Your task to perform on an android device: toggle data saver in the chrome app Image 0: 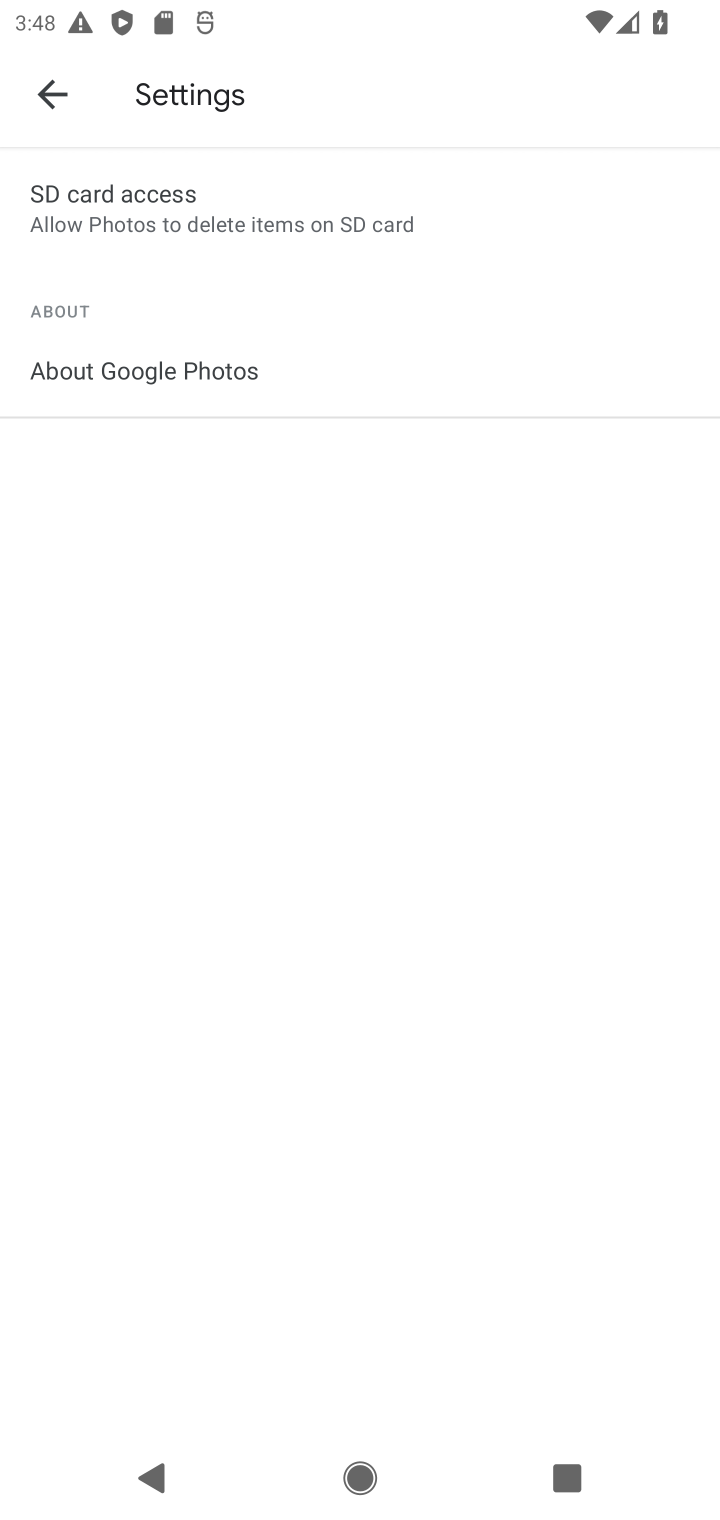
Step 0: press back button
Your task to perform on an android device: toggle data saver in the chrome app Image 1: 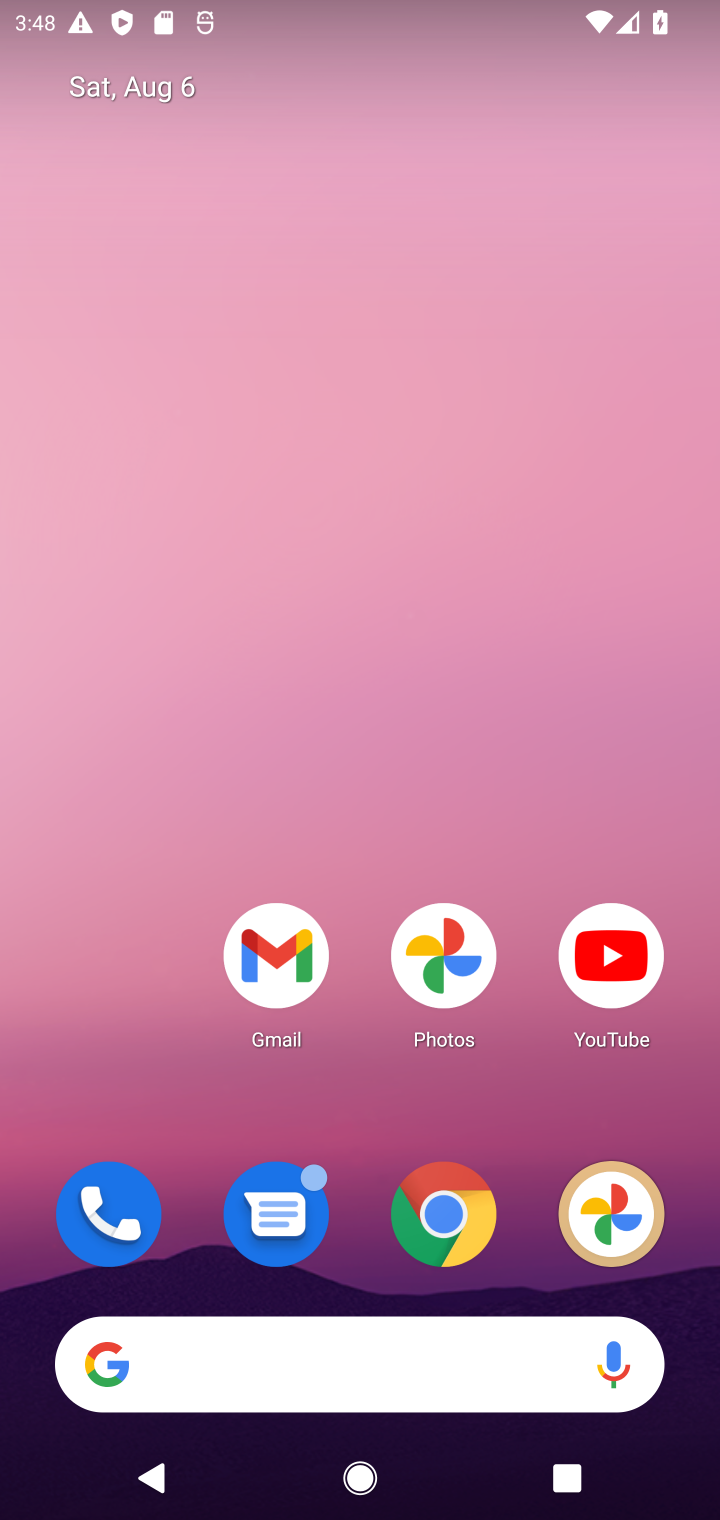
Step 1: click (446, 1219)
Your task to perform on an android device: toggle data saver in the chrome app Image 2: 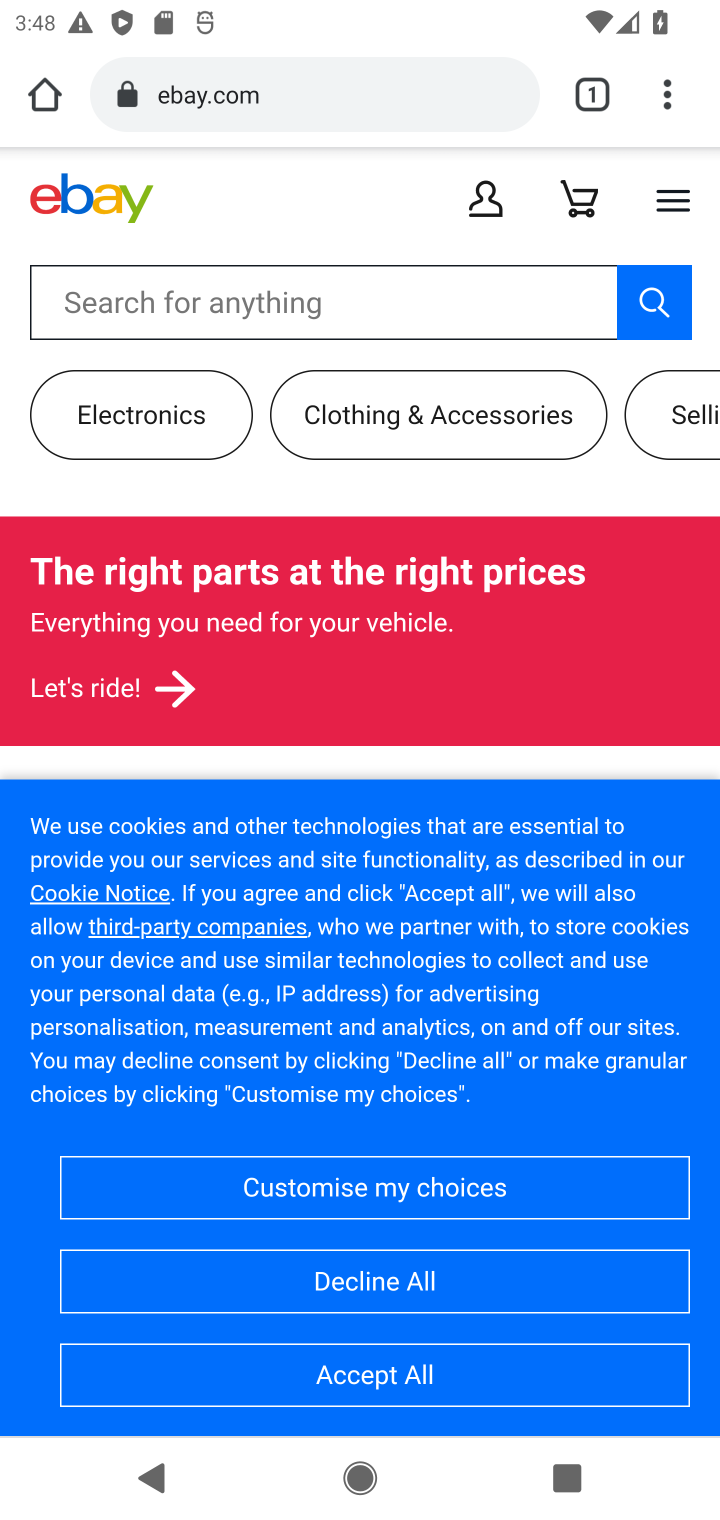
Step 2: click (662, 116)
Your task to perform on an android device: toggle data saver in the chrome app Image 3: 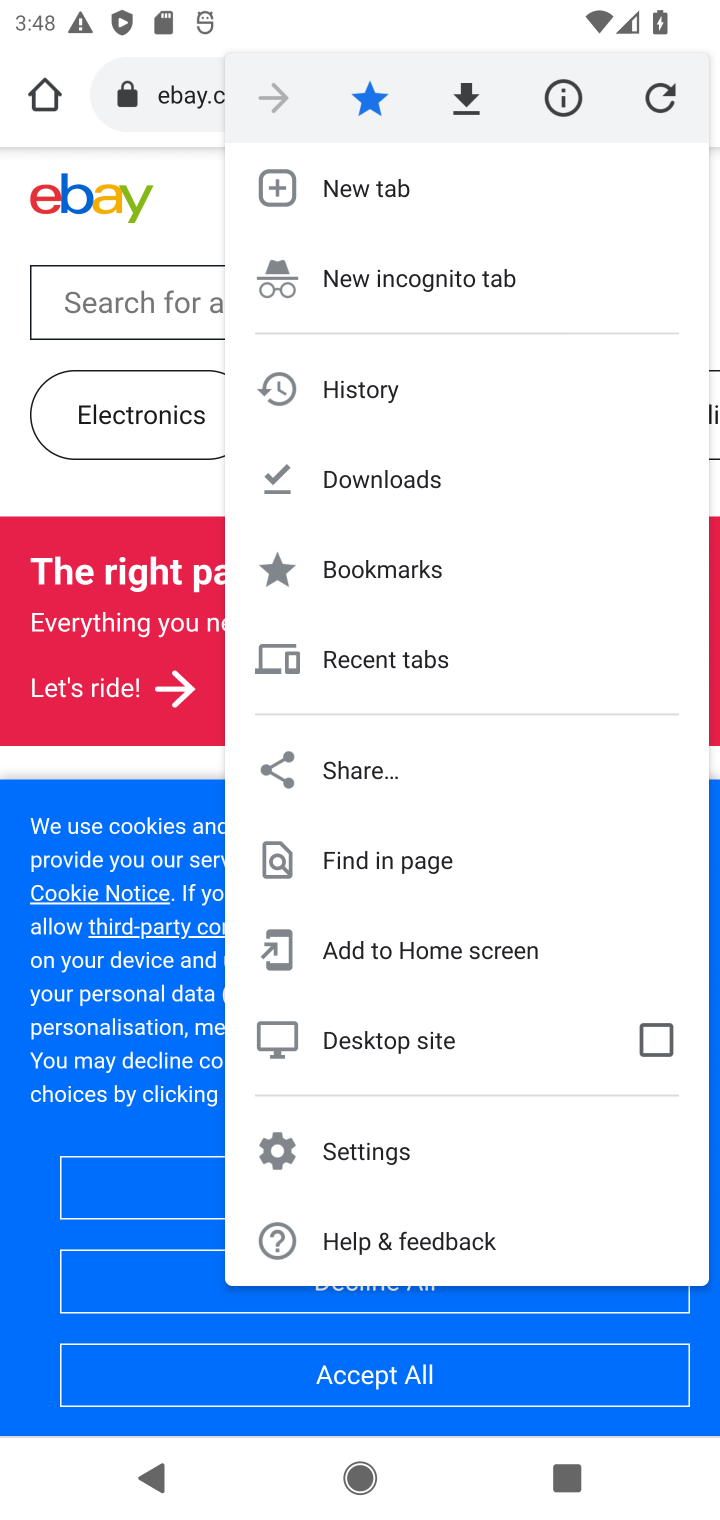
Step 3: click (379, 1150)
Your task to perform on an android device: toggle data saver in the chrome app Image 4: 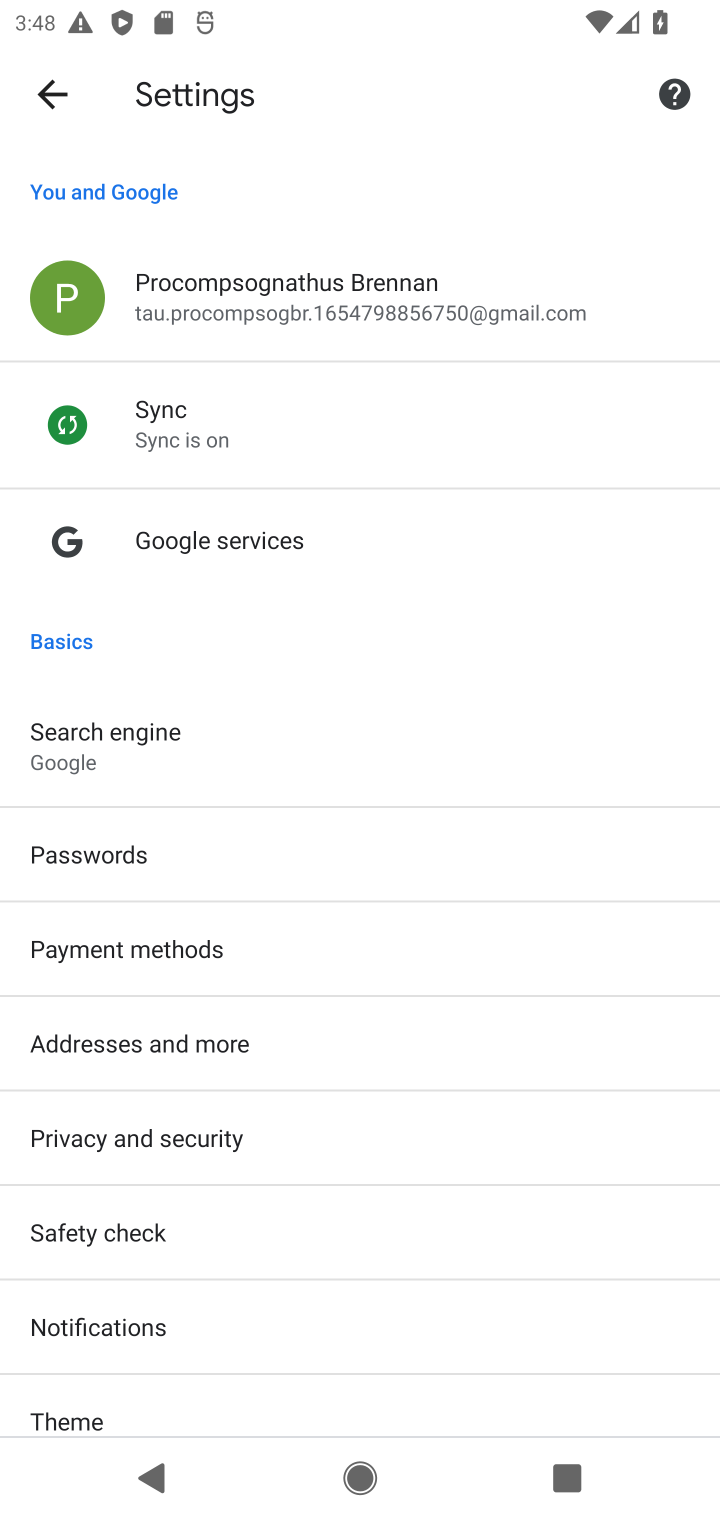
Step 4: drag from (177, 1233) to (244, 884)
Your task to perform on an android device: toggle data saver in the chrome app Image 5: 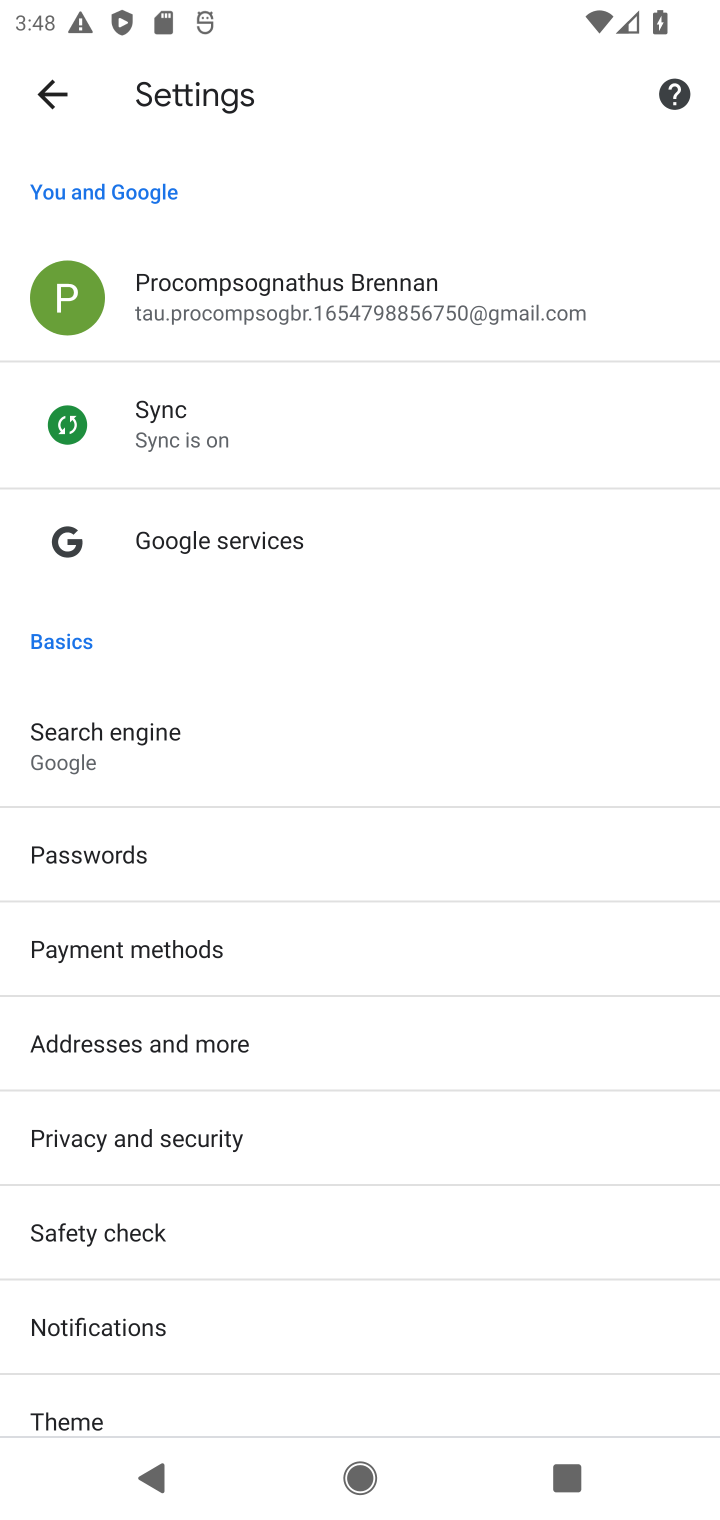
Step 5: drag from (154, 1353) to (181, 774)
Your task to perform on an android device: toggle data saver in the chrome app Image 6: 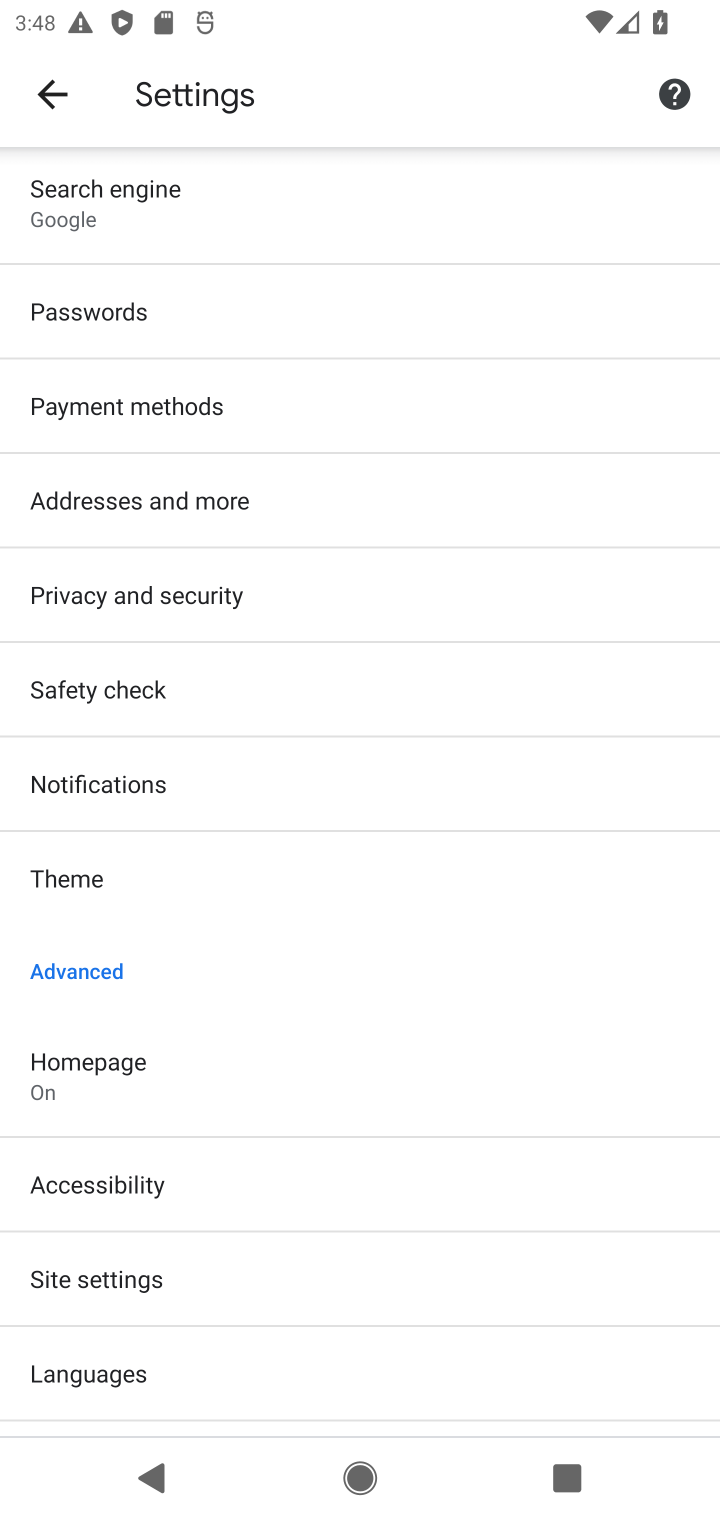
Step 6: drag from (155, 1242) to (201, 817)
Your task to perform on an android device: toggle data saver in the chrome app Image 7: 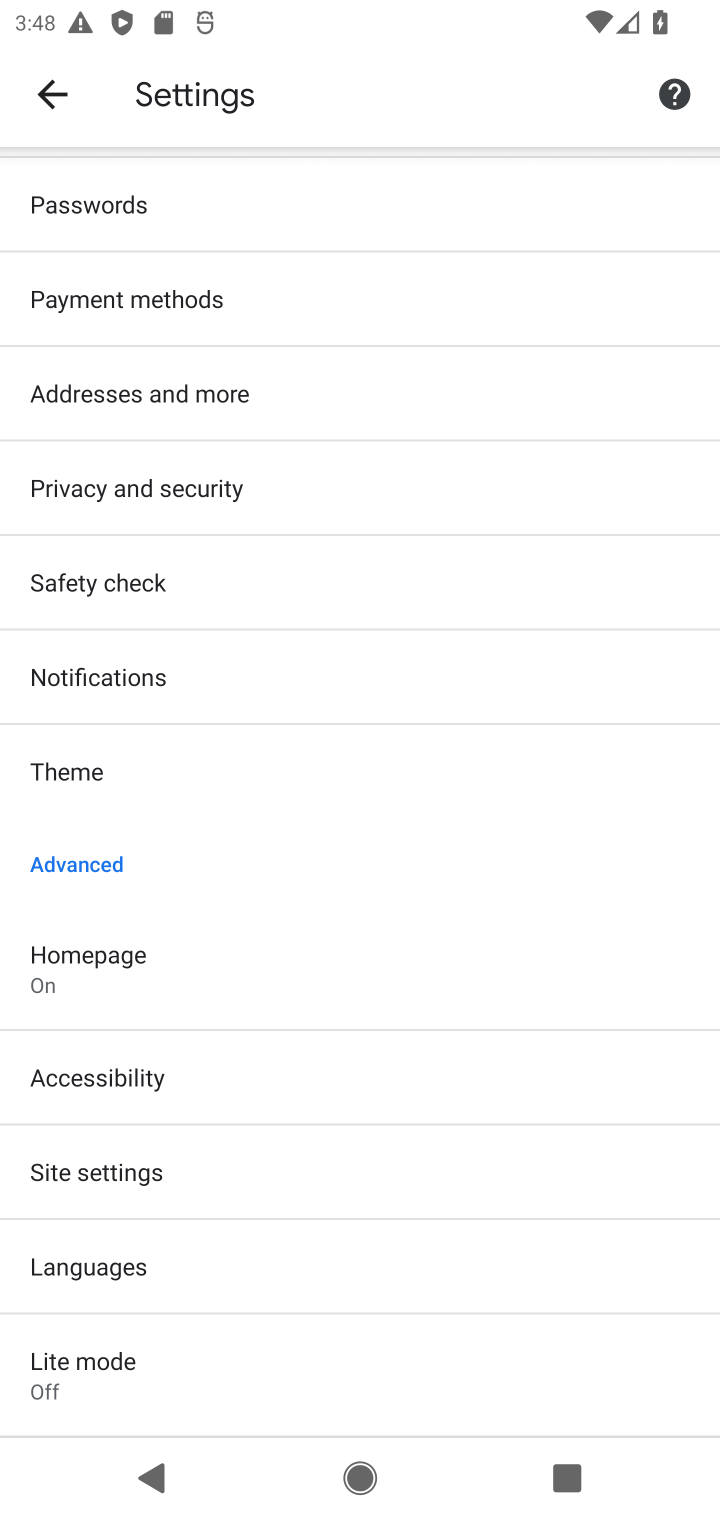
Step 7: drag from (169, 922) to (193, 782)
Your task to perform on an android device: toggle data saver in the chrome app Image 8: 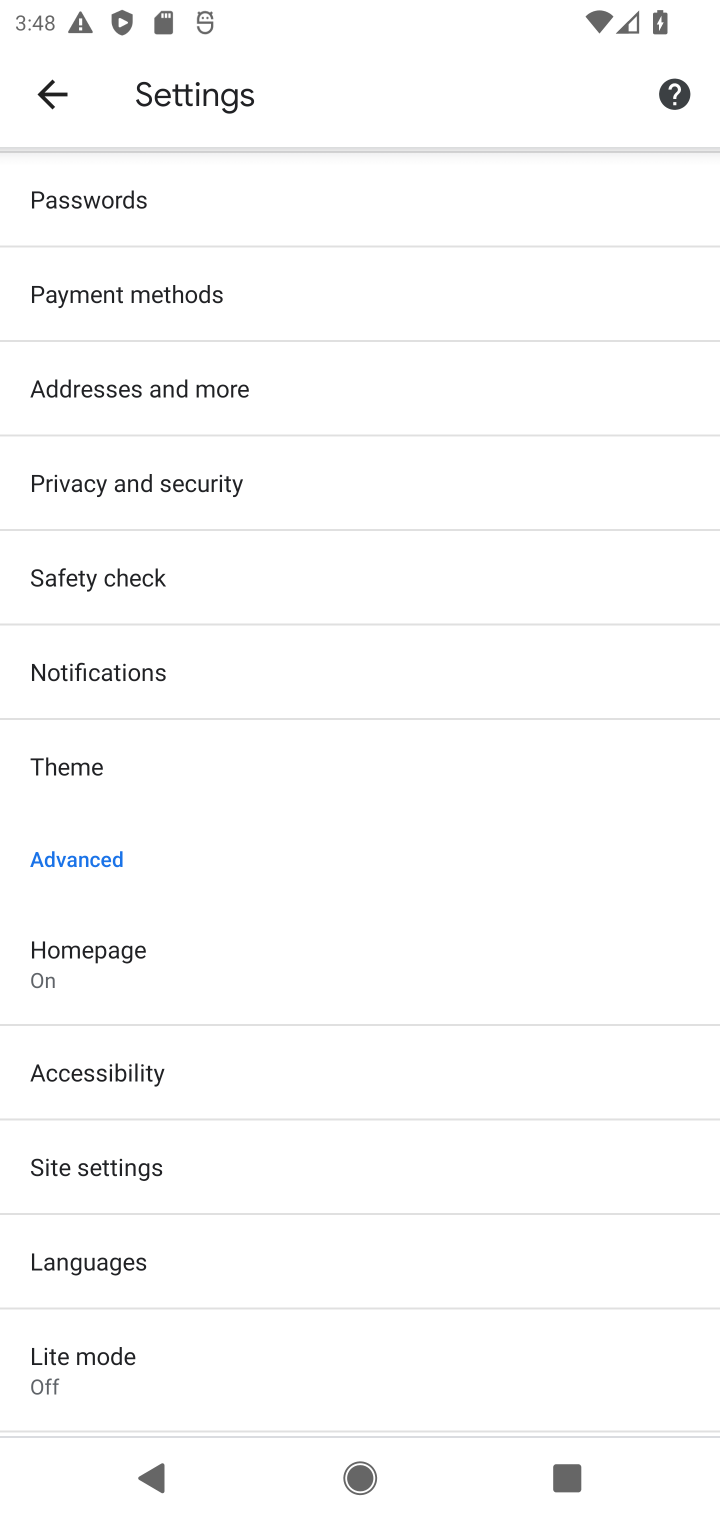
Step 8: click (75, 1347)
Your task to perform on an android device: toggle data saver in the chrome app Image 9: 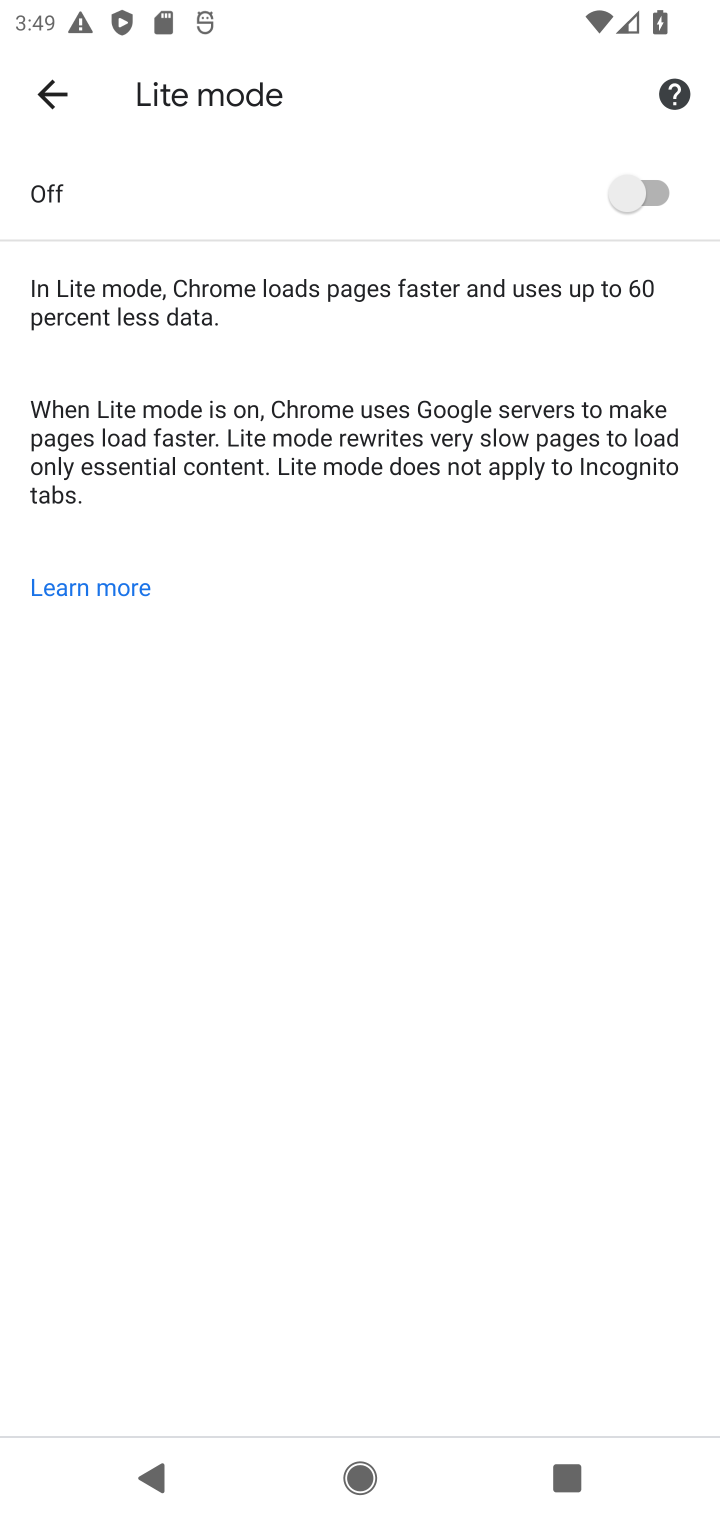
Step 9: click (672, 189)
Your task to perform on an android device: toggle data saver in the chrome app Image 10: 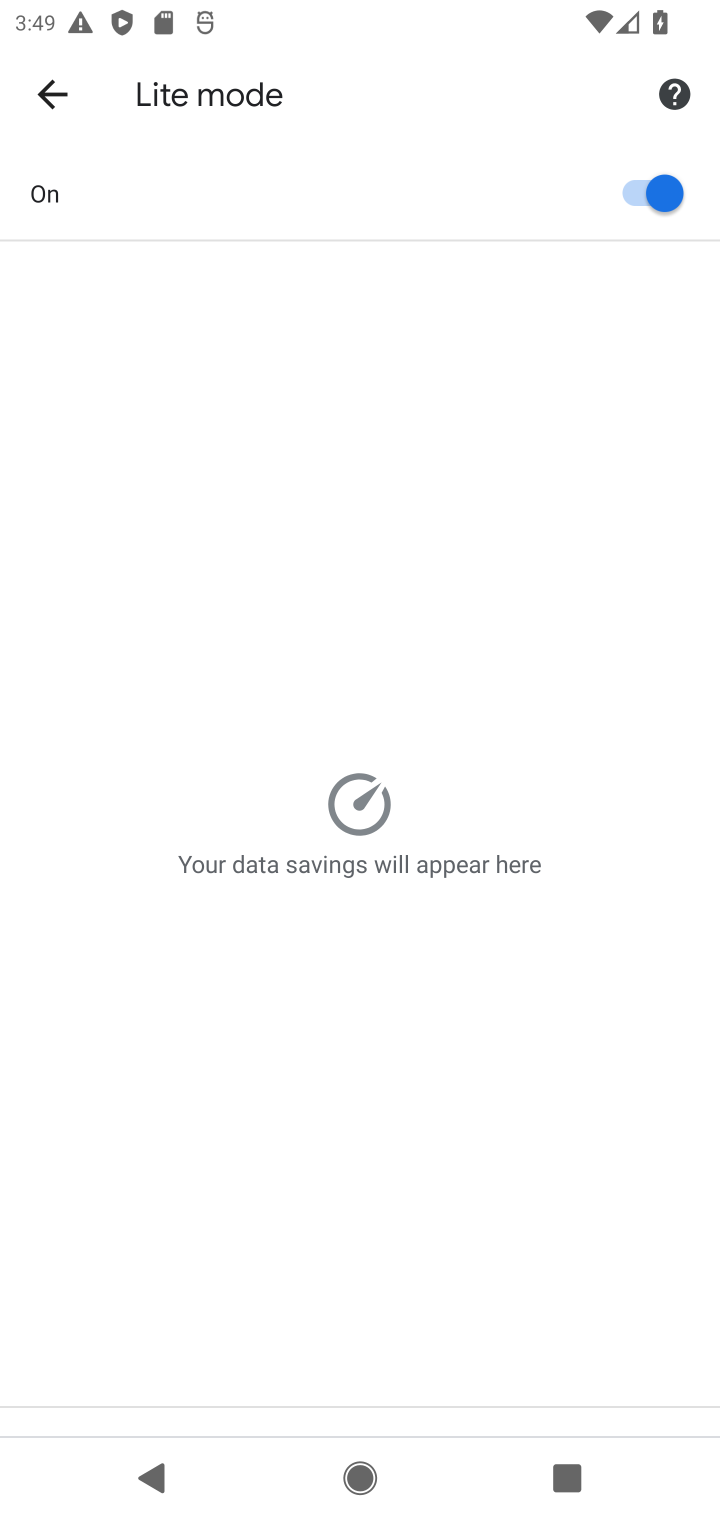
Step 10: task complete